Your task to perform on an android device: Show me productivity apps on the Play Store Image 0: 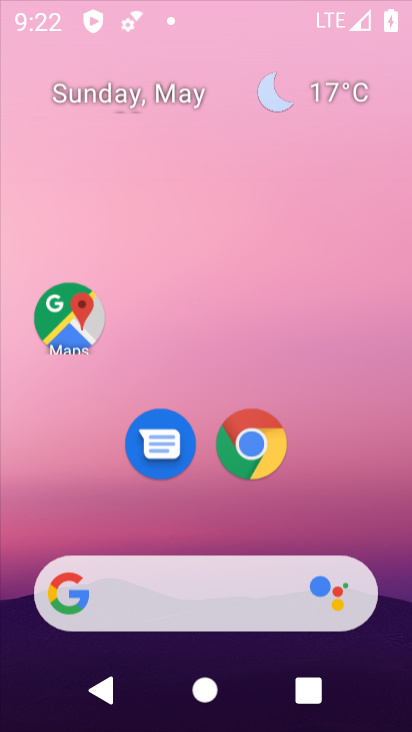
Step 0: click (237, 156)
Your task to perform on an android device: Show me productivity apps on the Play Store Image 1: 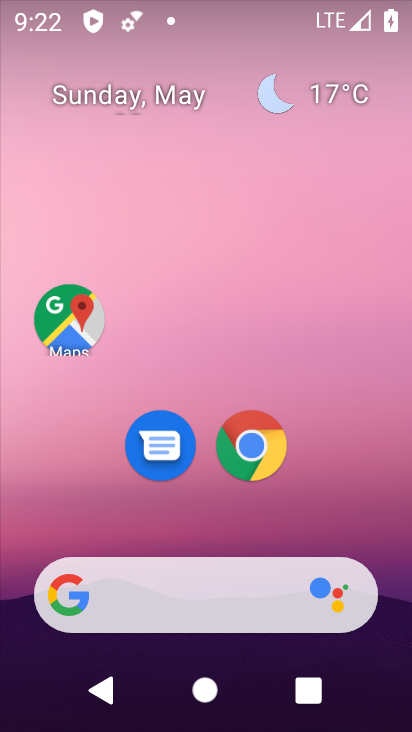
Step 1: drag from (198, 474) to (203, 155)
Your task to perform on an android device: Show me productivity apps on the Play Store Image 2: 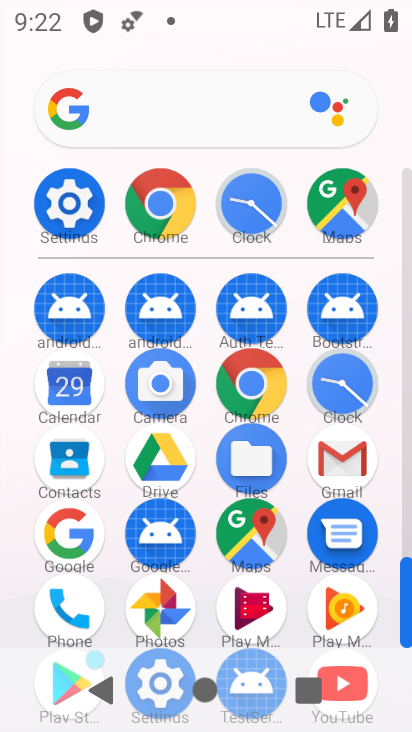
Step 2: drag from (114, 604) to (118, 289)
Your task to perform on an android device: Show me productivity apps on the Play Store Image 3: 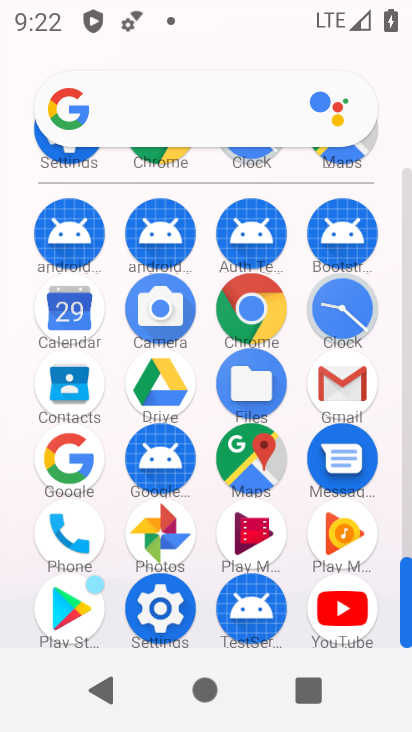
Step 3: click (92, 604)
Your task to perform on an android device: Show me productivity apps on the Play Store Image 4: 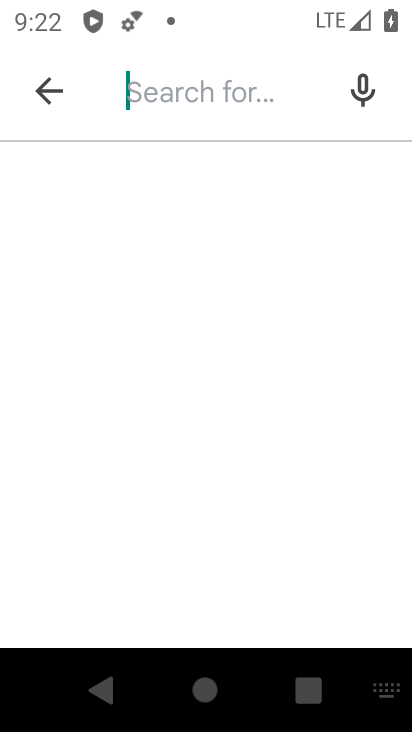
Step 4: click (70, 94)
Your task to perform on an android device: Show me productivity apps on the Play Store Image 5: 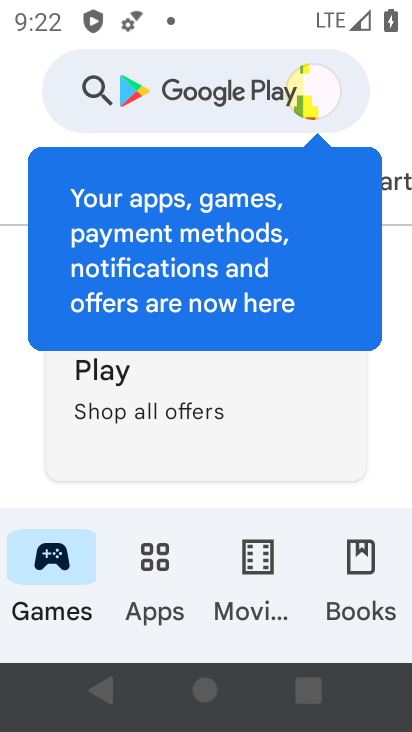
Step 5: task complete